Your task to perform on an android device: search for starred emails in the gmail app Image 0: 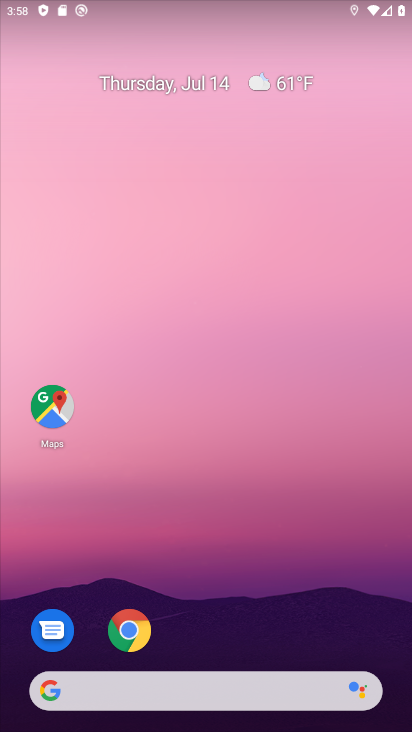
Step 0: drag from (312, 613) to (200, 35)
Your task to perform on an android device: search for starred emails in the gmail app Image 1: 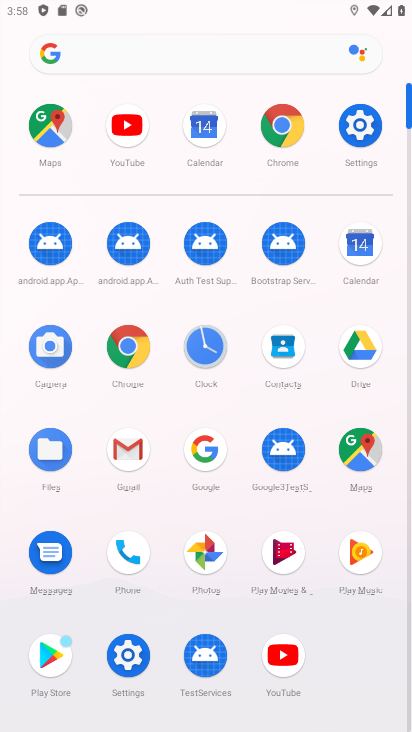
Step 1: click (129, 446)
Your task to perform on an android device: search for starred emails in the gmail app Image 2: 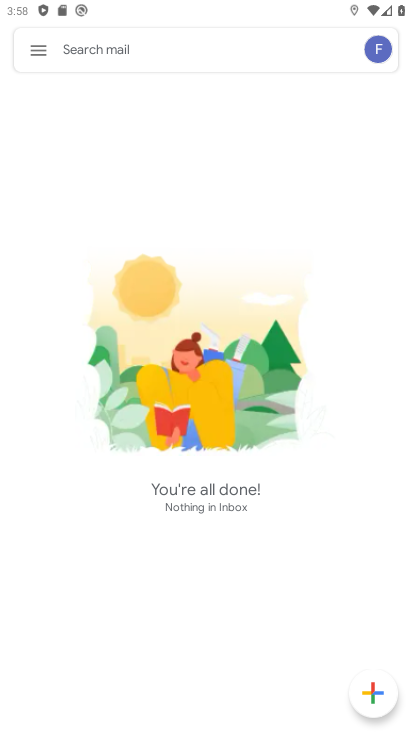
Step 2: click (31, 51)
Your task to perform on an android device: search for starred emails in the gmail app Image 3: 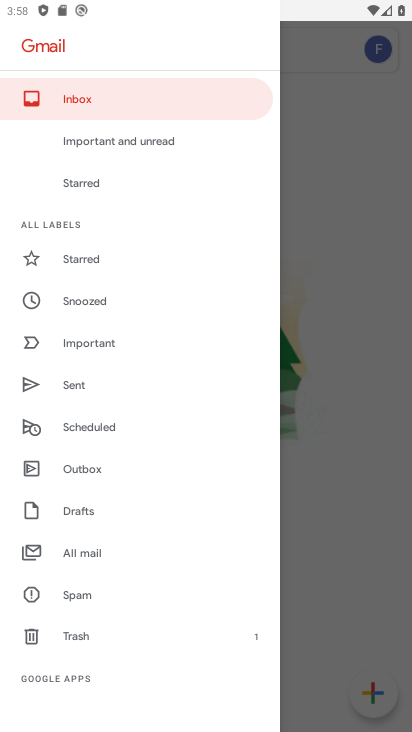
Step 3: click (120, 259)
Your task to perform on an android device: search for starred emails in the gmail app Image 4: 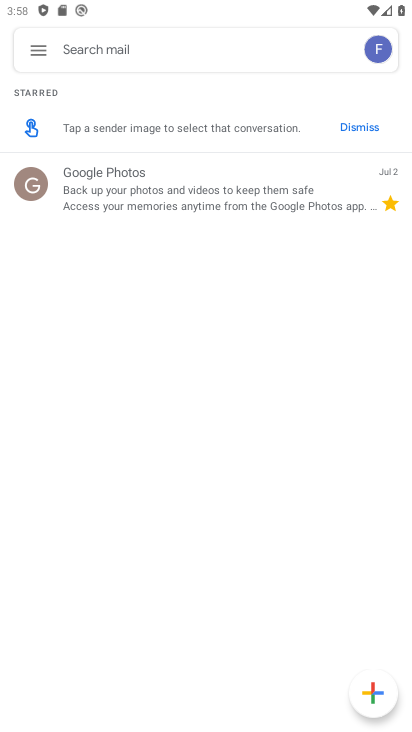
Step 4: task complete